Your task to perform on an android device: When is my next meeting? Image 0: 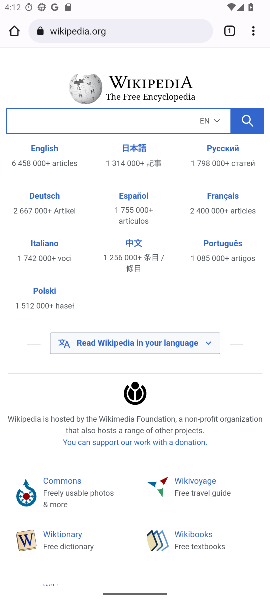
Step 0: drag from (95, 465) to (112, 586)
Your task to perform on an android device: When is my next meeting? Image 1: 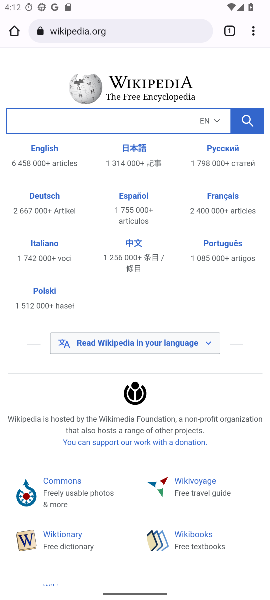
Step 1: press home button
Your task to perform on an android device: When is my next meeting? Image 2: 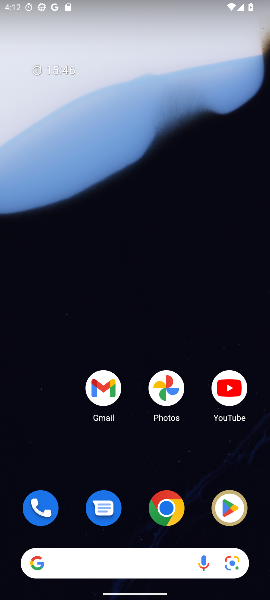
Step 2: drag from (143, 515) to (122, 93)
Your task to perform on an android device: When is my next meeting? Image 3: 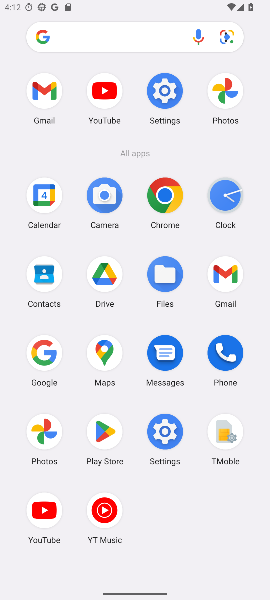
Step 3: click (41, 206)
Your task to perform on an android device: When is my next meeting? Image 4: 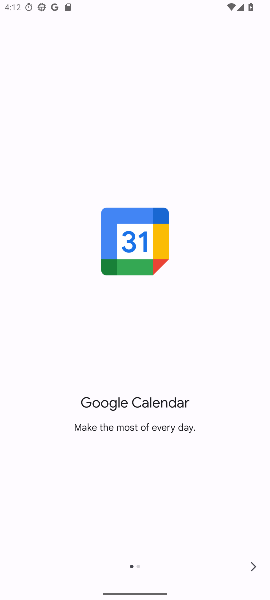
Step 4: click (247, 567)
Your task to perform on an android device: When is my next meeting? Image 5: 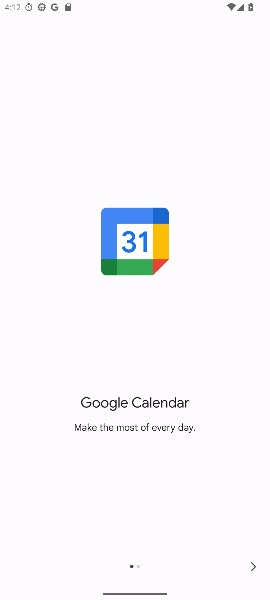
Step 5: click (247, 567)
Your task to perform on an android device: When is my next meeting? Image 6: 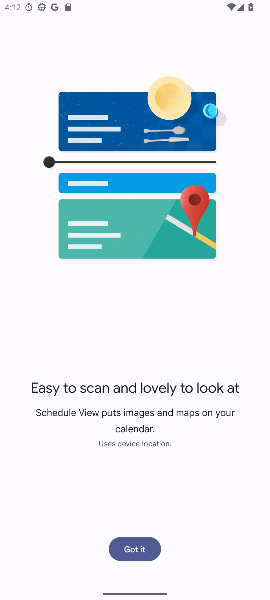
Step 6: click (245, 565)
Your task to perform on an android device: When is my next meeting? Image 7: 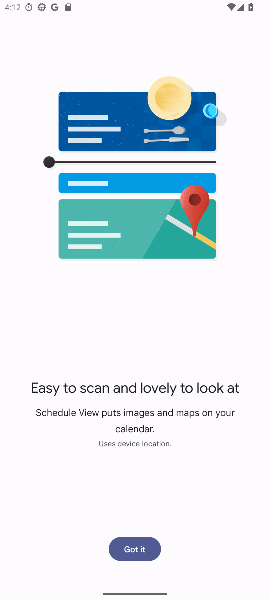
Step 7: click (129, 546)
Your task to perform on an android device: When is my next meeting? Image 8: 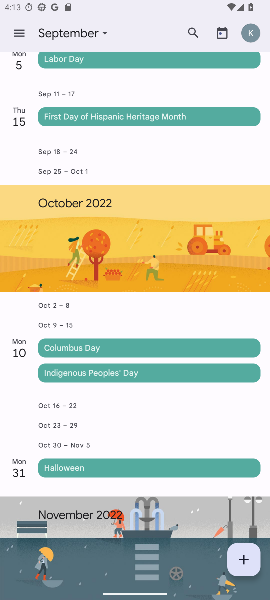
Step 8: drag from (144, 266) to (144, 570)
Your task to perform on an android device: When is my next meeting? Image 9: 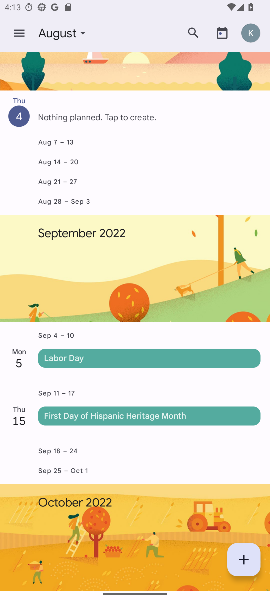
Step 9: click (62, 39)
Your task to perform on an android device: When is my next meeting? Image 10: 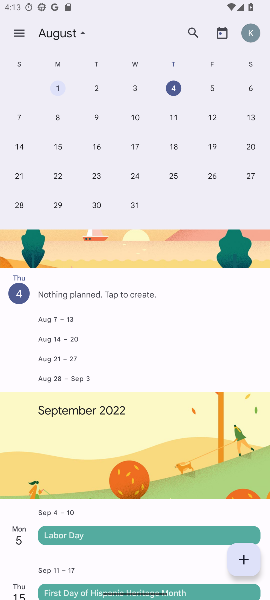
Step 10: click (167, 90)
Your task to perform on an android device: When is my next meeting? Image 11: 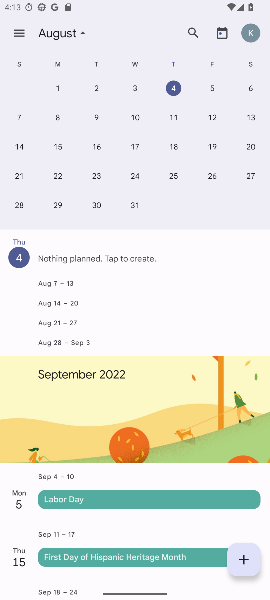
Step 11: task complete